Your task to perform on an android device: uninstall "Flipkart Online Shopping App" Image 0: 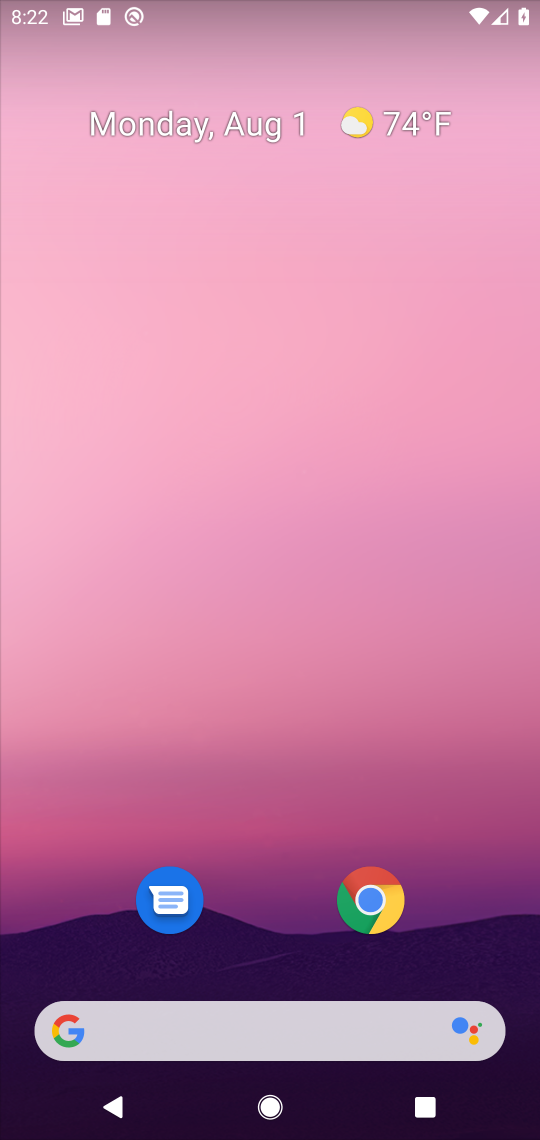
Step 0: drag from (274, 977) to (268, 140)
Your task to perform on an android device: uninstall "Flipkart Online Shopping App" Image 1: 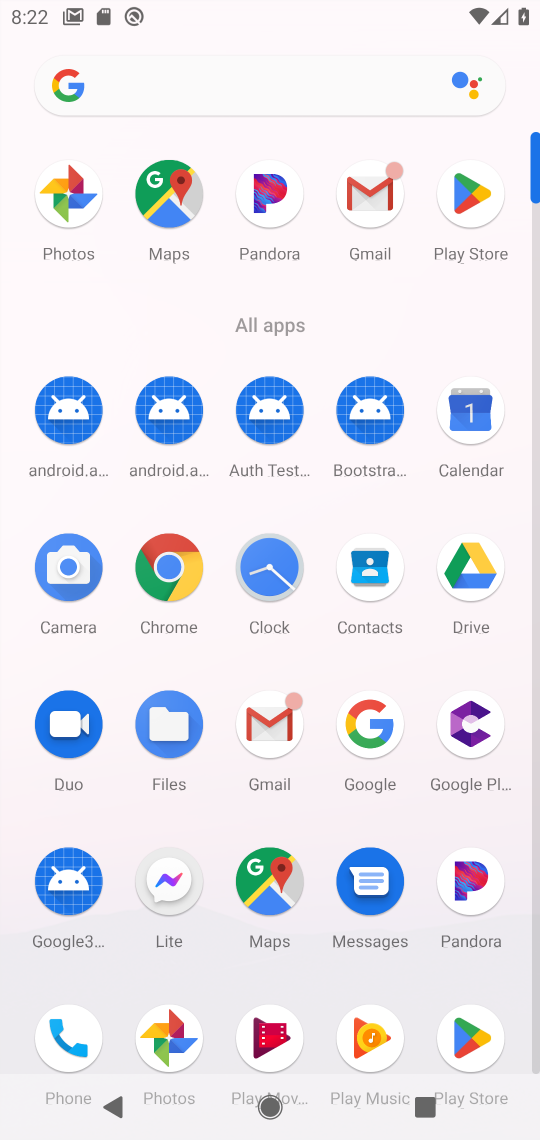
Step 1: click (479, 1024)
Your task to perform on an android device: uninstall "Flipkart Online Shopping App" Image 2: 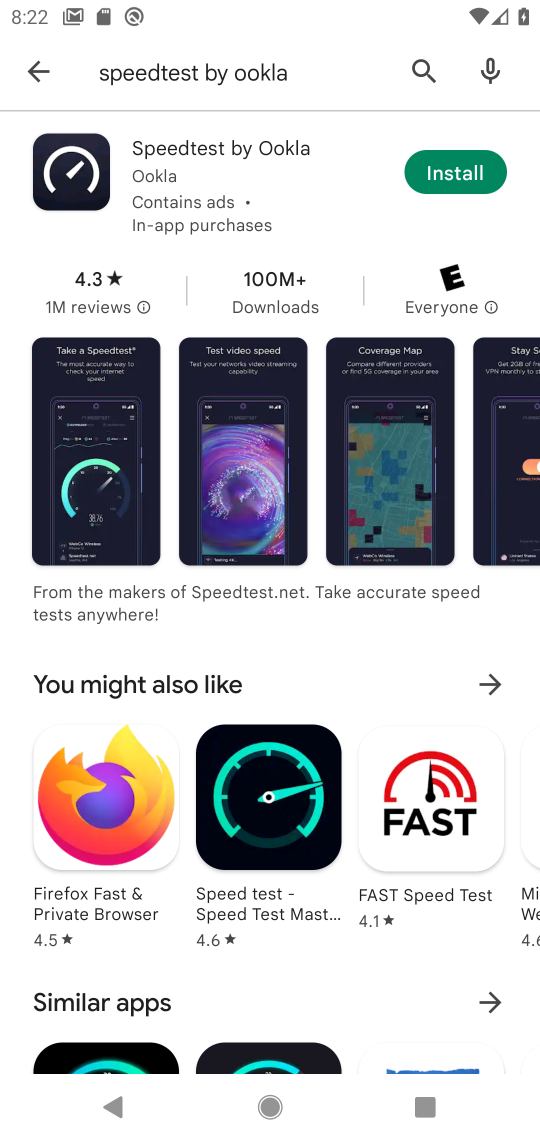
Step 2: click (32, 74)
Your task to perform on an android device: uninstall "Flipkart Online Shopping App" Image 3: 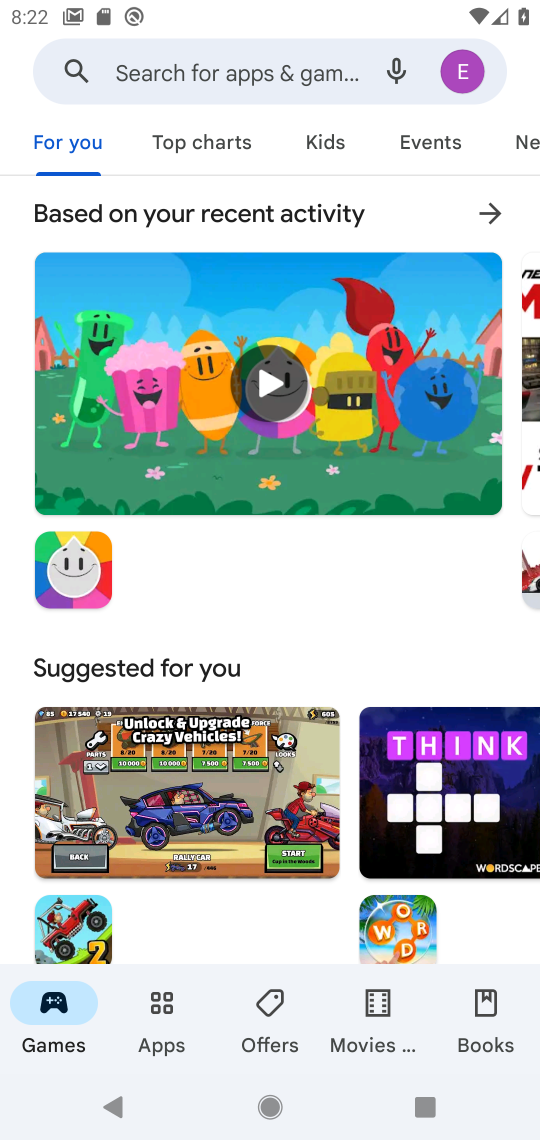
Step 3: click (117, 57)
Your task to perform on an android device: uninstall "Flipkart Online Shopping App" Image 4: 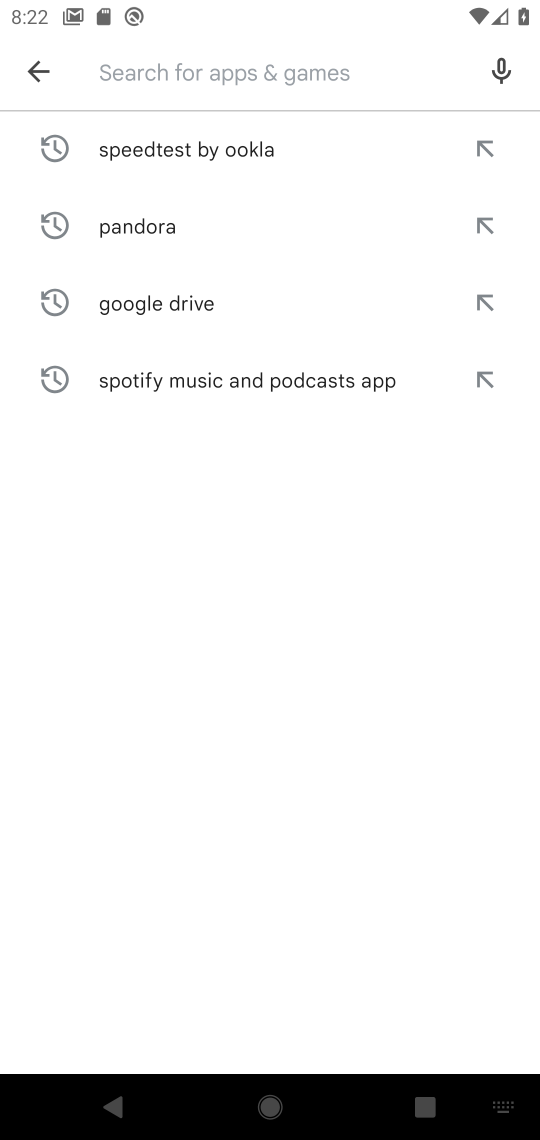
Step 4: type "Flipkart Online Shopping Ap"
Your task to perform on an android device: uninstall "Flipkart Online Shopping App" Image 5: 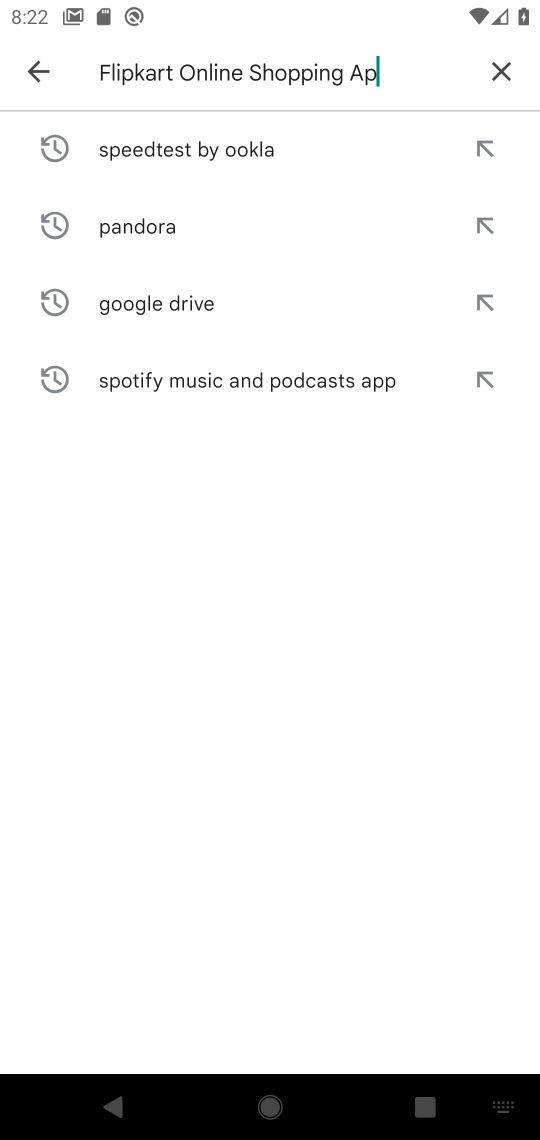
Step 5: type ""
Your task to perform on an android device: uninstall "Flipkart Online Shopping App" Image 6: 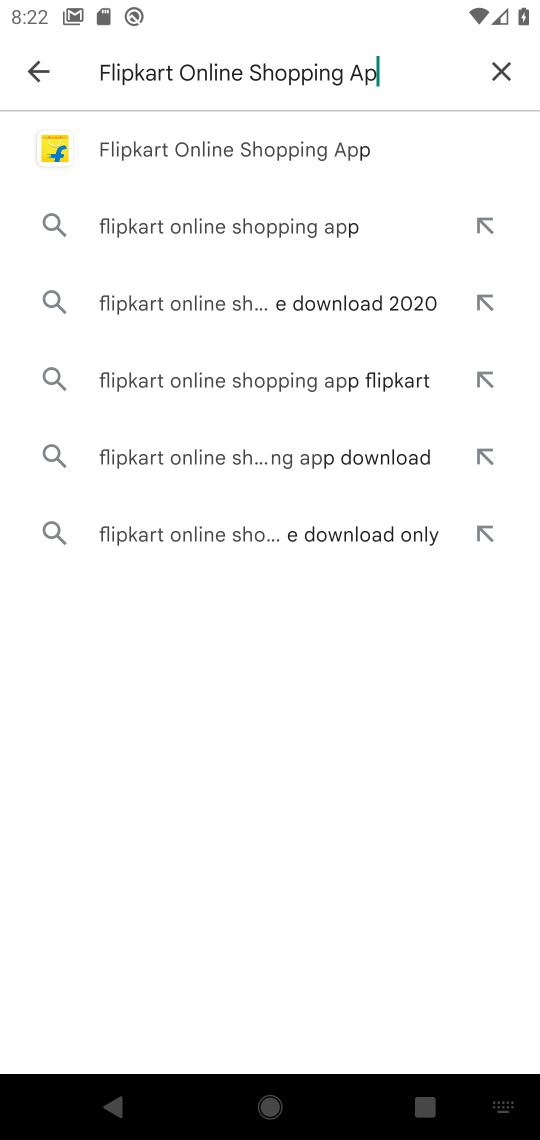
Step 6: click (184, 145)
Your task to perform on an android device: uninstall "Flipkart Online Shopping App" Image 7: 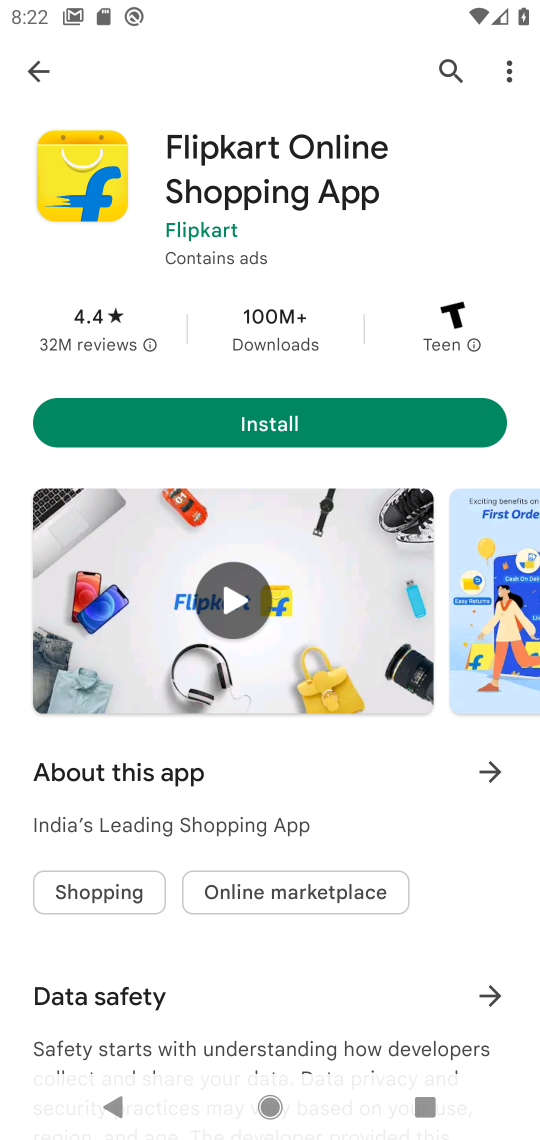
Step 7: task complete